Your task to perform on an android device: turn on the 12-hour format for clock Image 0: 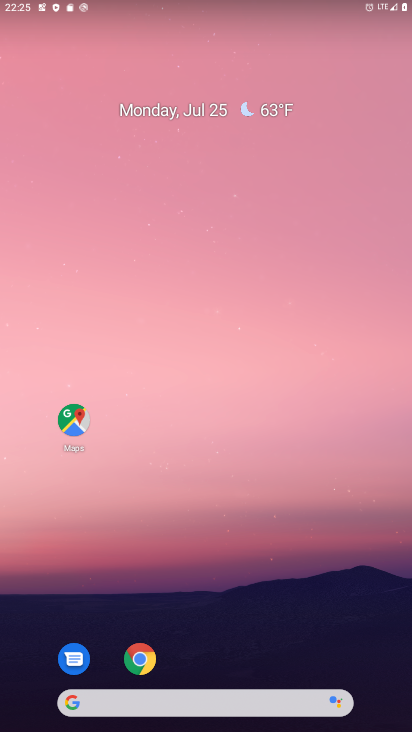
Step 0: drag from (212, 723) to (196, 227)
Your task to perform on an android device: turn on the 12-hour format for clock Image 1: 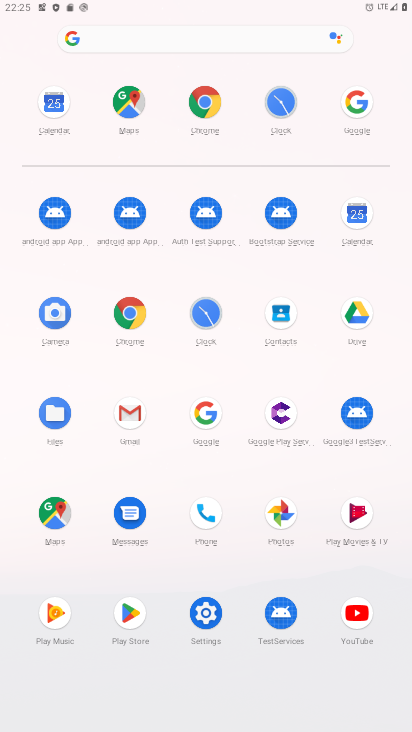
Step 1: click (206, 309)
Your task to perform on an android device: turn on the 12-hour format for clock Image 2: 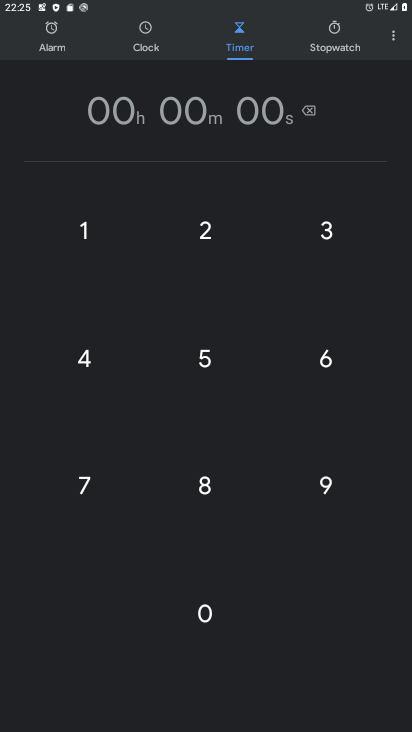
Step 2: click (393, 37)
Your task to perform on an android device: turn on the 12-hour format for clock Image 3: 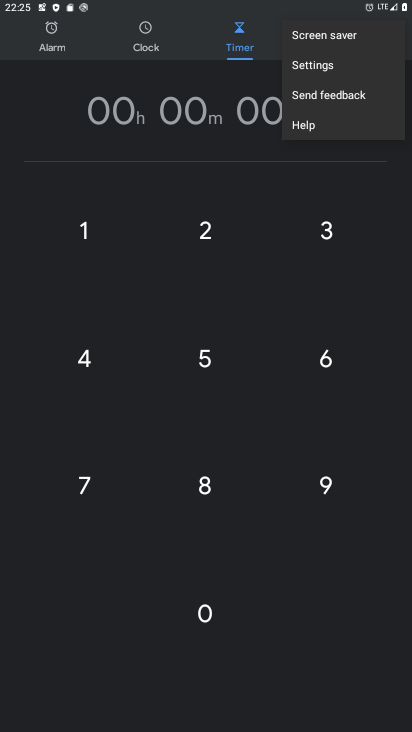
Step 3: click (327, 65)
Your task to perform on an android device: turn on the 12-hour format for clock Image 4: 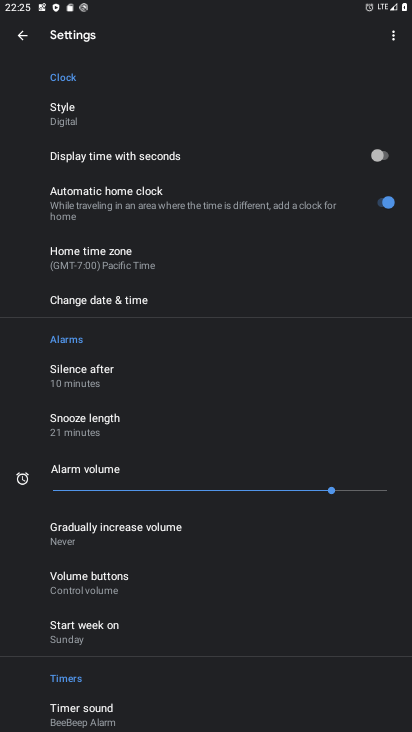
Step 4: click (91, 299)
Your task to perform on an android device: turn on the 12-hour format for clock Image 5: 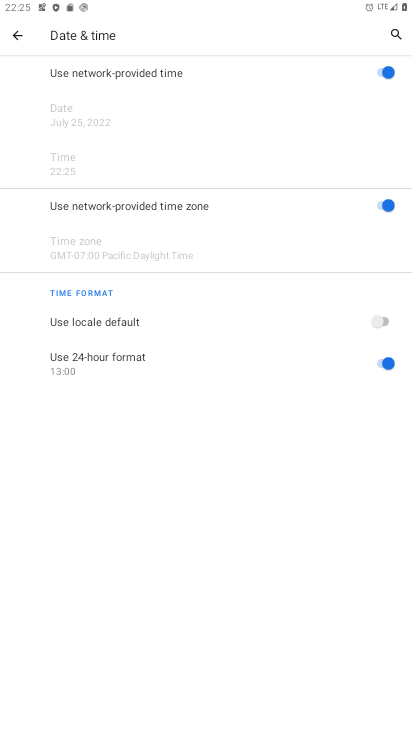
Step 5: task complete